Your task to perform on an android device: change text size in settings app Image 0: 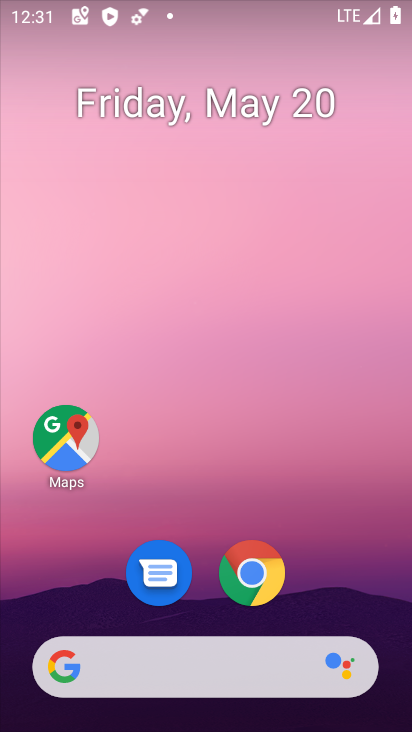
Step 0: drag from (204, 604) to (264, 0)
Your task to perform on an android device: change text size in settings app Image 1: 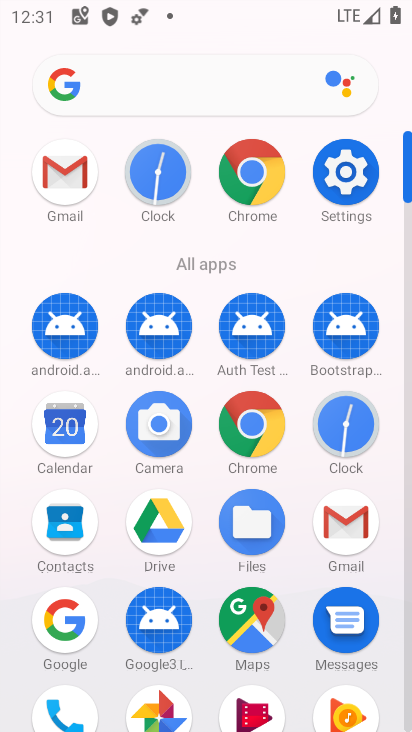
Step 1: click (350, 188)
Your task to perform on an android device: change text size in settings app Image 2: 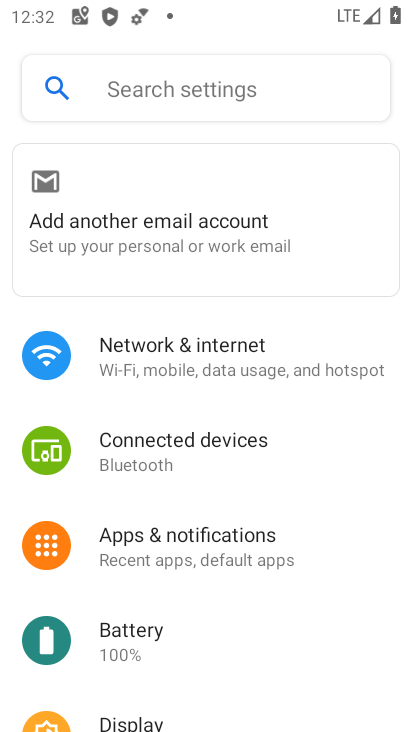
Step 2: drag from (128, 643) to (194, 335)
Your task to perform on an android device: change text size in settings app Image 3: 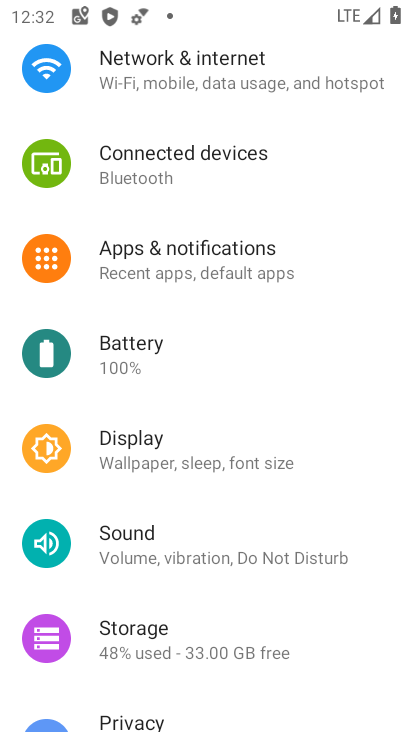
Step 3: click (153, 457)
Your task to perform on an android device: change text size in settings app Image 4: 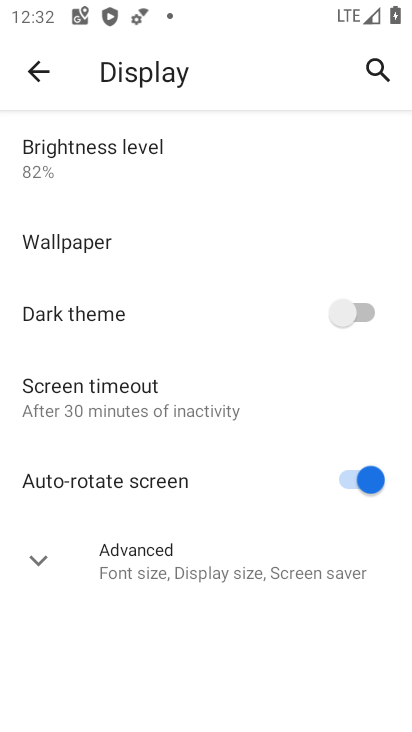
Step 4: click (180, 550)
Your task to perform on an android device: change text size in settings app Image 5: 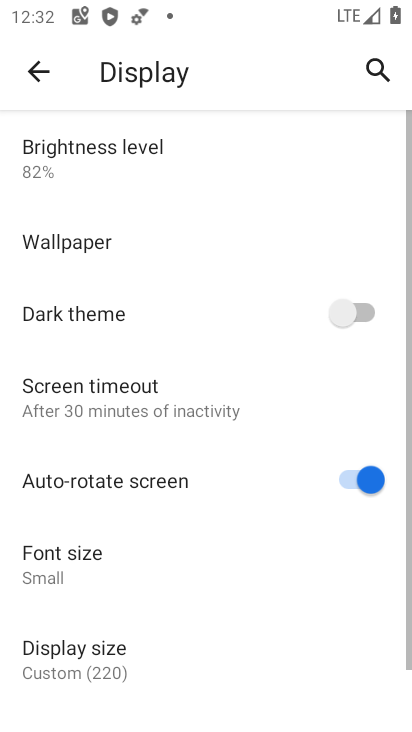
Step 5: drag from (130, 625) to (157, 452)
Your task to perform on an android device: change text size in settings app Image 6: 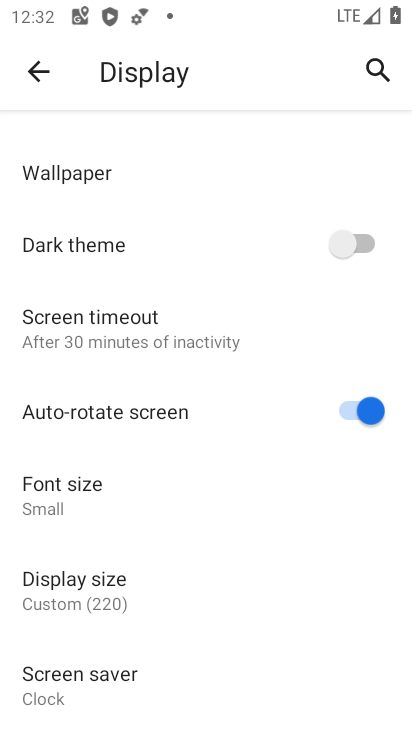
Step 6: drag from (99, 654) to (154, 428)
Your task to perform on an android device: change text size in settings app Image 7: 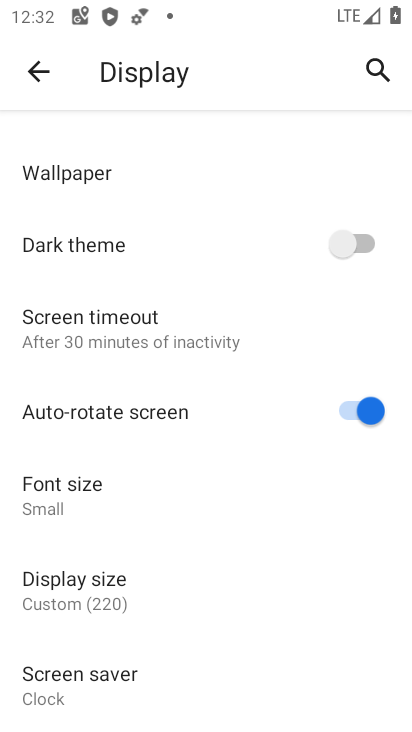
Step 7: click (92, 482)
Your task to perform on an android device: change text size in settings app Image 8: 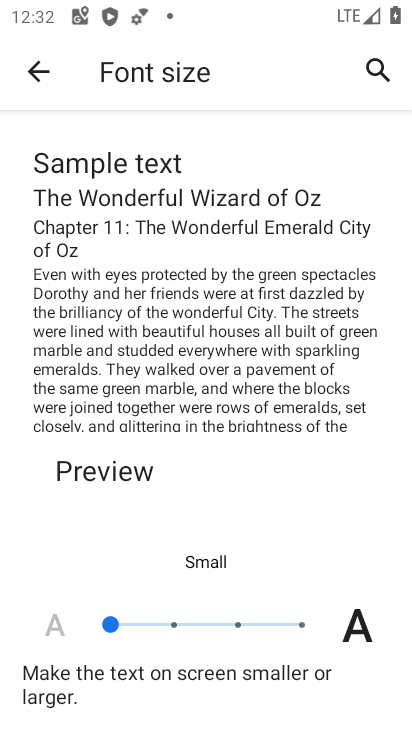
Step 8: click (163, 621)
Your task to perform on an android device: change text size in settings app Image 9: 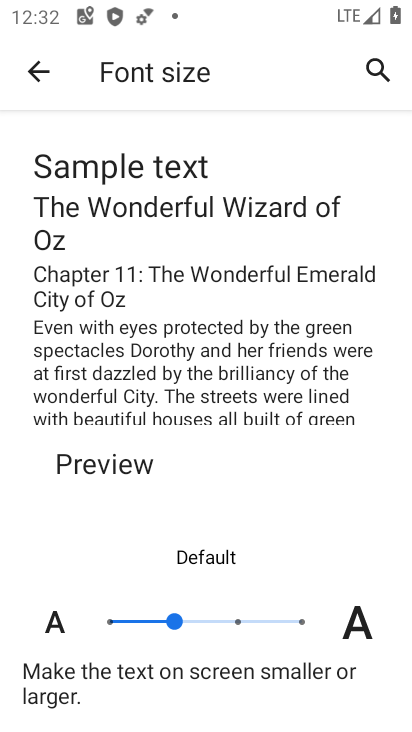
Step 9: task complete